Your task to perform on an android device: allow notifications from all sites in the chrome app Image 0: 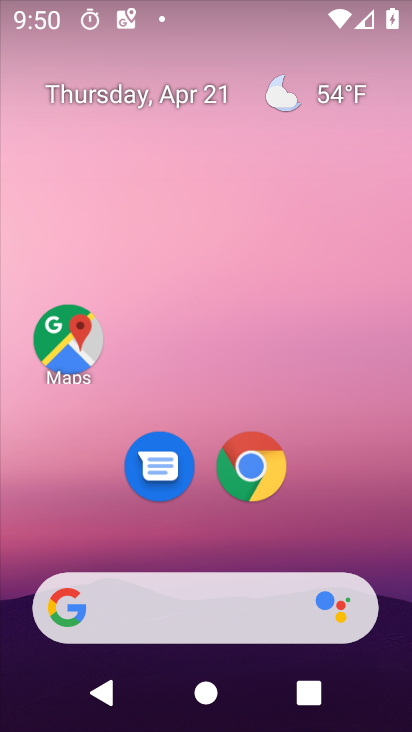
Step 0: drag from (382, 460) to (391, 100)
Your task to perform on an android device: allow notifications from all sites in the chrome app Image 1: 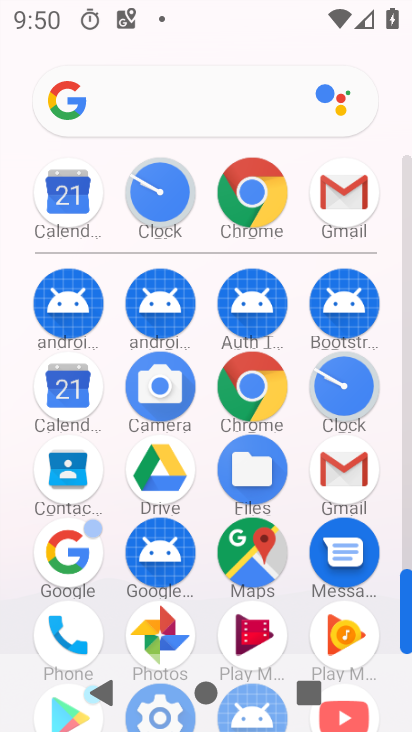
Step 1: click (249, 196)
Your task to perform on an android device: allow notifications from all sites in the chrome app Image 2: 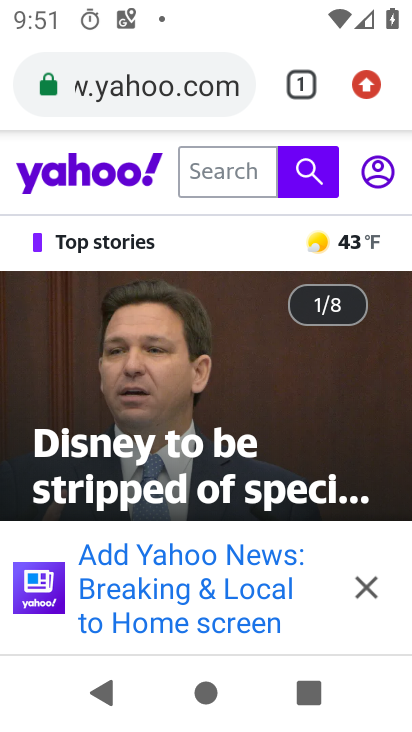
Step 2: drag from (377, 92) to (249, 532)
Your task to perform on an android device: allow notifications from all sites in the chrome app Image 3: 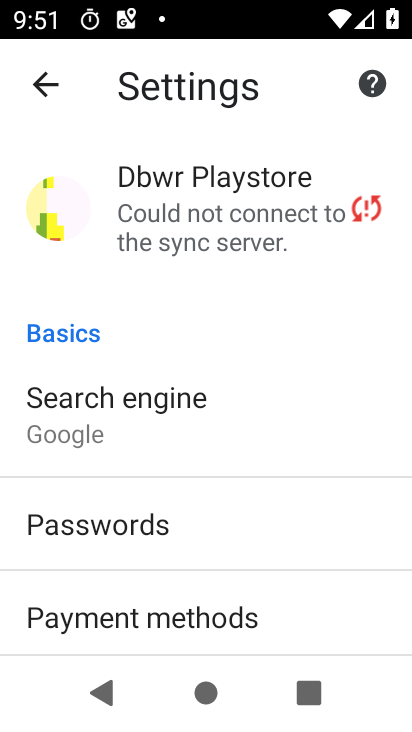
Step 3: drag from (316, 586) to (292, 358)
Your task to perform on an android device: allow notifications from all sites in the chrome app Image 4: 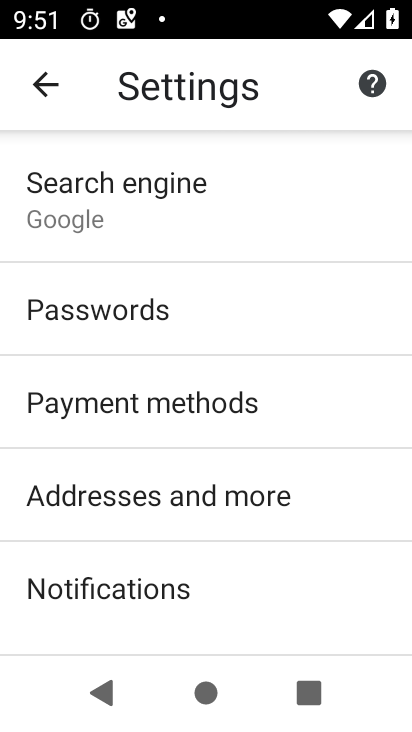
Step 4: drag from (283, 559) to (289, 265)
Your task to perform on an android device: allow notifications from all sites in the chrome app Image 5: 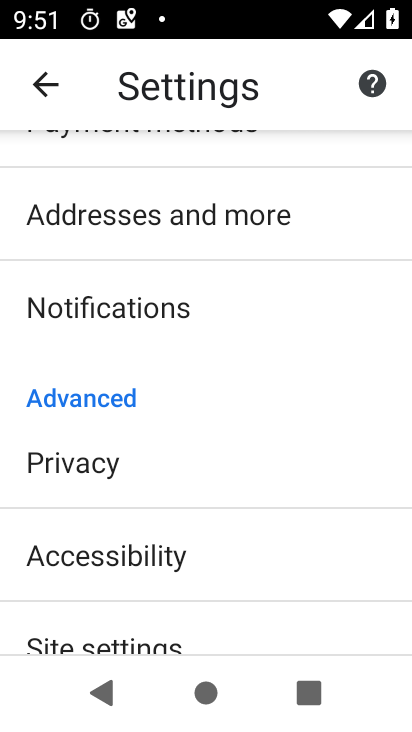
Step 5: drag from (275, 573) to (303, 388)
Your task to perform on an android device: allow notifications from all sites in the chrome app Image 6: 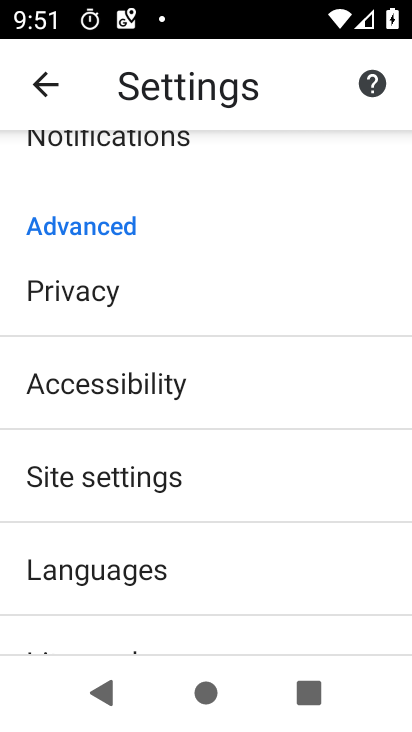
Step 6: click (137, 462)
Your task to perform on an android device: allow notifications from all sites in the chrome app Image 7: 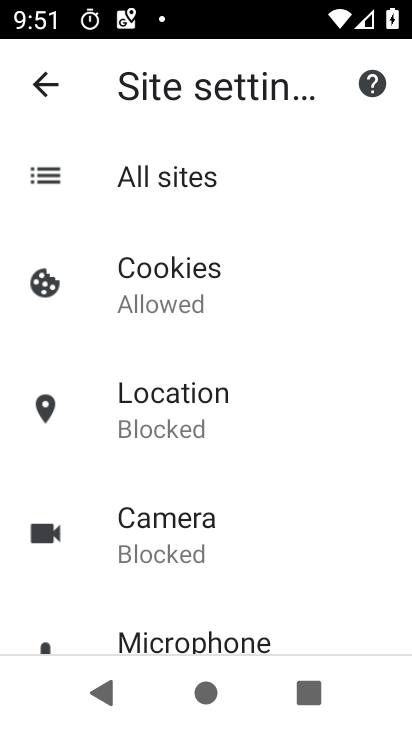
Step 7: click (188, 182)
Your task to perform on an android device: allow notifications from all sites in the chrome app Image 8: 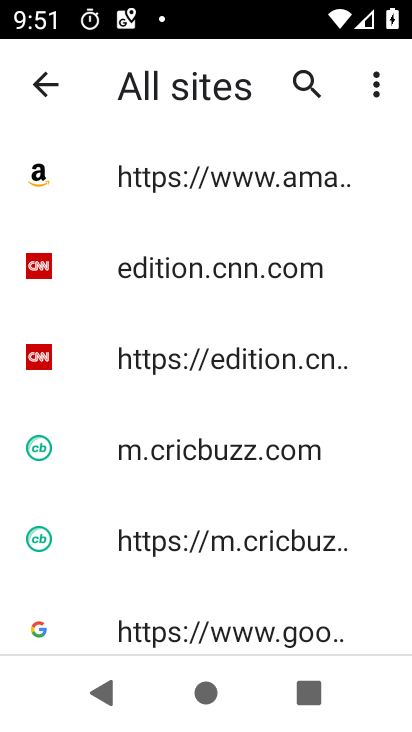
Step 8: click (190, 180)
Your task to perform on an android device: allow notifications from all sites in the chrome app Image 9: 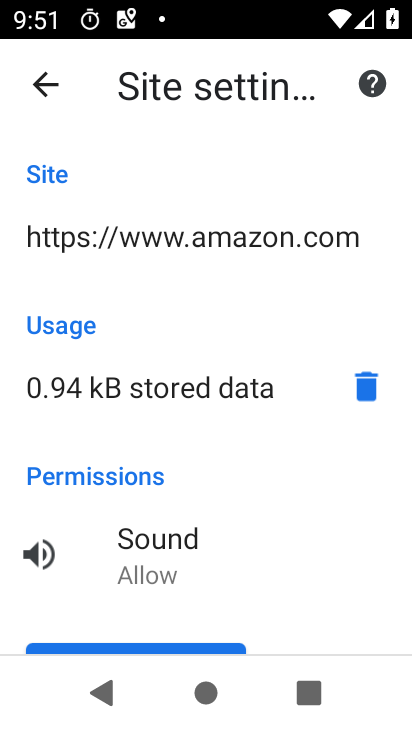
Step 9: task complete